Your task to perform on an android device: Show me the alarms in the clock app Image 0: 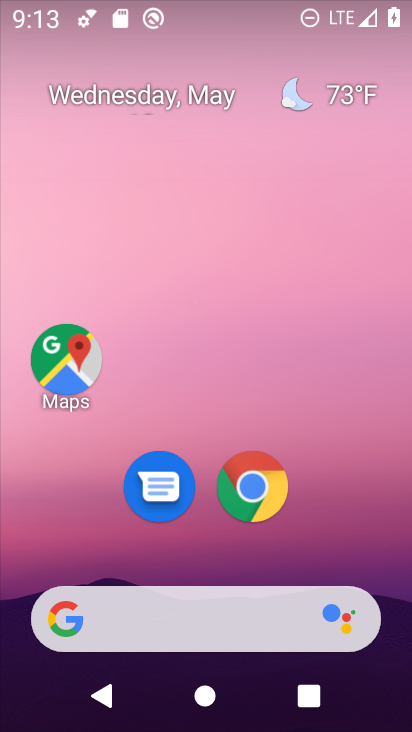
Step 0: drag from (404, 635) to (347, 210)
Your task to perform on an android device: Show me the alarms in the clock app Image 1: 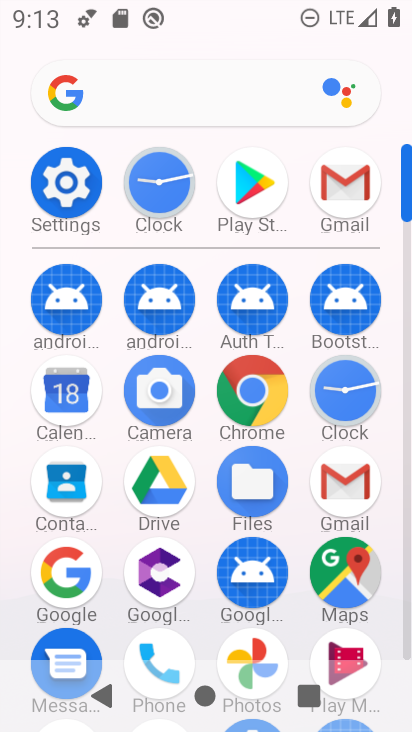
Step 1: click (408, 640)
Your task to perform on an android device: Show me the alarms in the clock app Image 2: 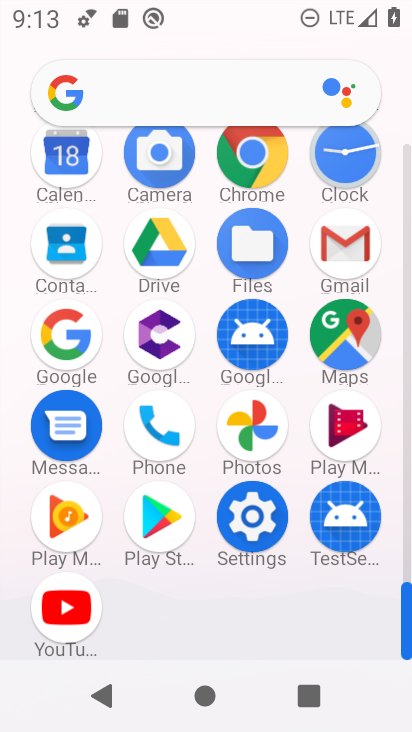
Step 2: click (342, 152)
Your task to perform on an android device: Show me the alarms in the clock app Image 3: 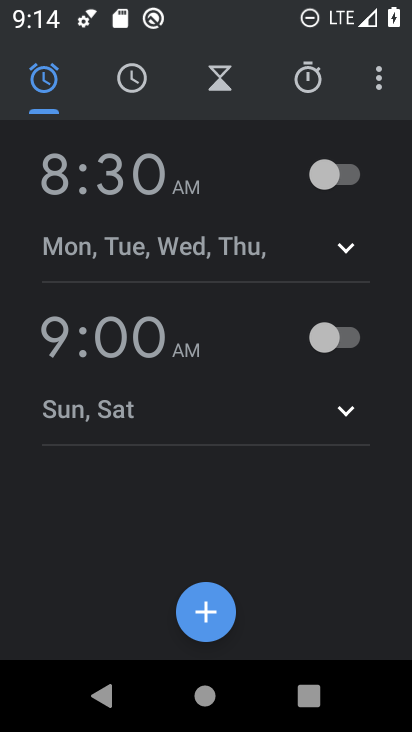
Step 3: task complete